Your task to perform on an android device: turn on wifi Image 0: 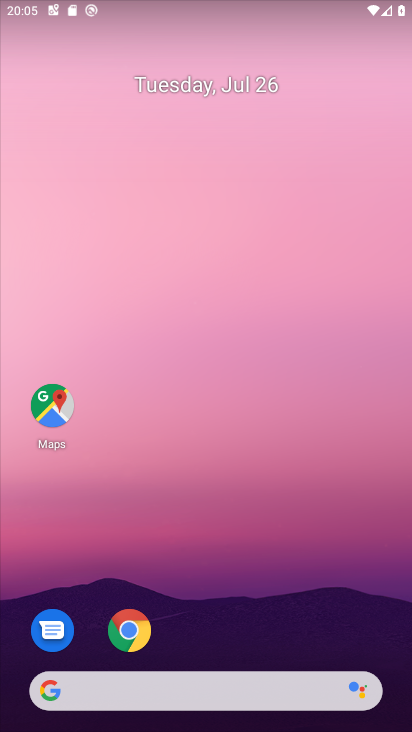
Step 0: drag from (392, 700) to (348, 73)
Your task to perform on an android device: turn on wifi Image 1: 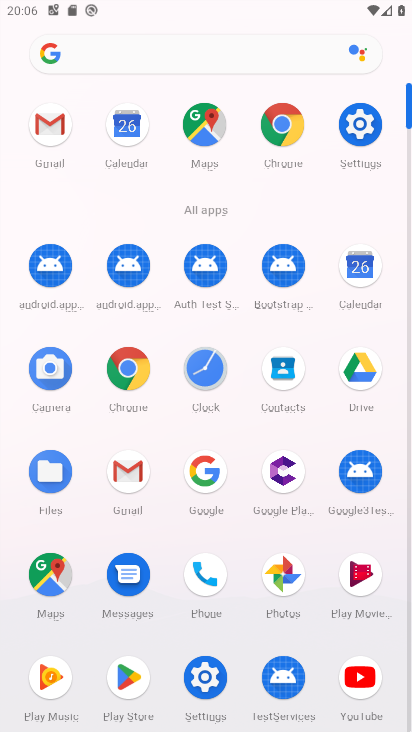
Step 1: click (355, 117)
Your task to perform on an android device: turn on wifi Image 2: 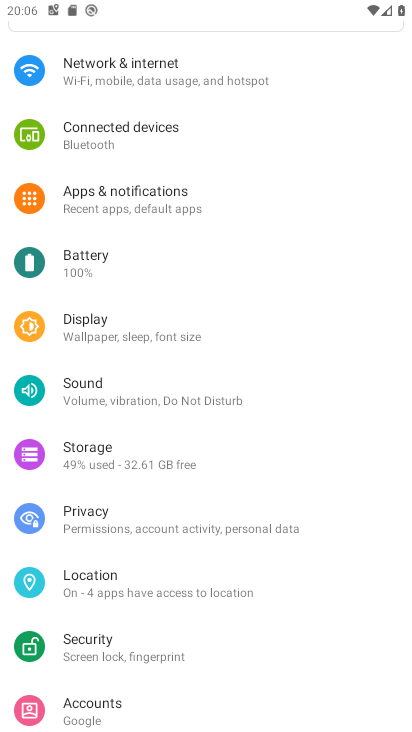
Step 2: click (133, 71)
Your task to perform on an android device: turn on wifi Image 3: 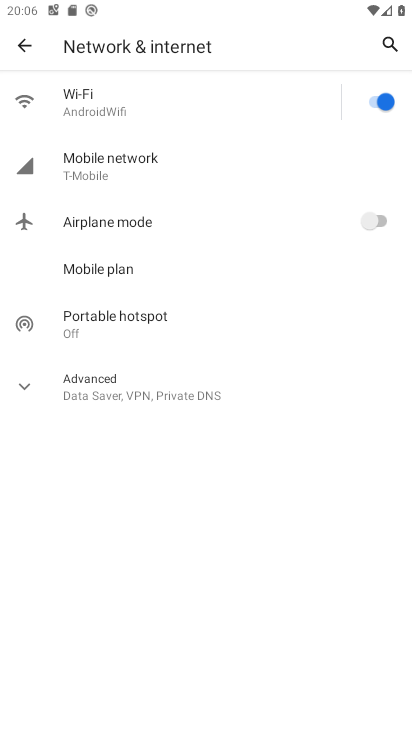
Step 3: task complete